Your task to perform on an android device: read, delete, or share a saved page in the chrome app Image 0: 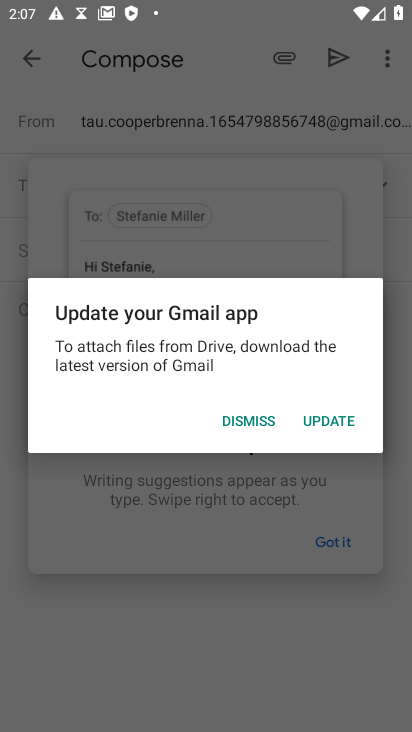
Step 0: press back button
Your task to perform on an android device: read, delete, or share a saved page in the chrome app Image 1: 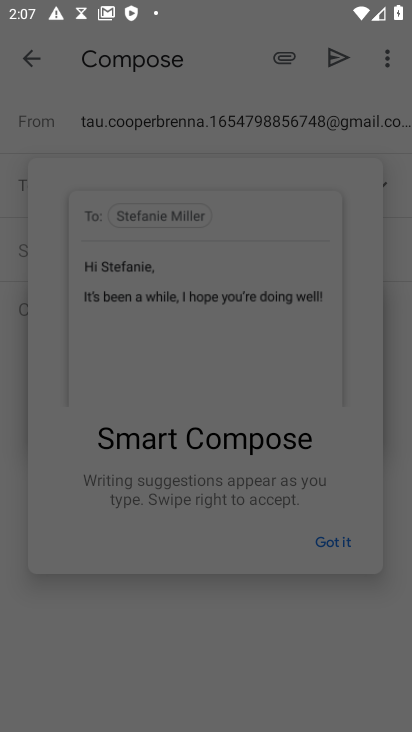
Step 1: press back button
Your task to perform on an android device: read, delete, or share a saved page in the chrome app Image 2: 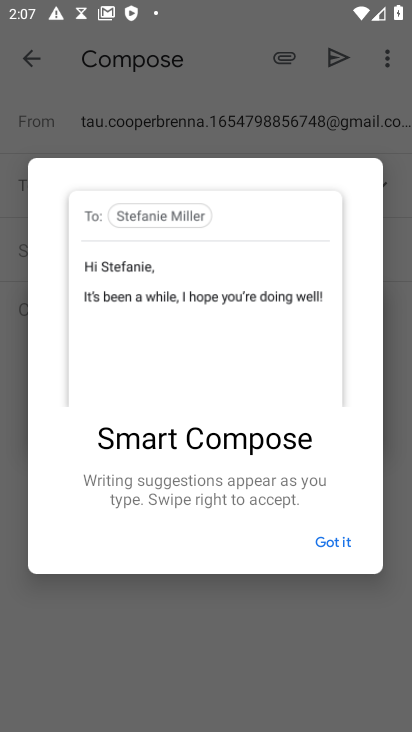
Step 2: press back button
Your task to perform on an android device: read, delete, or share a saved page in the chrome app Image 3: 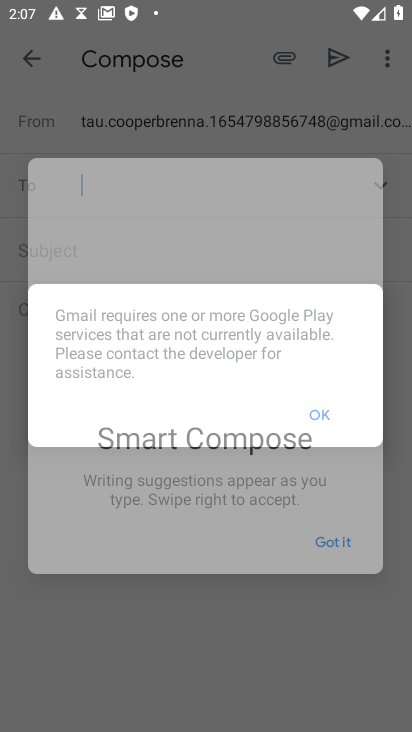
Step 3: press back button
Your task to perform on an android device: read, delete, or share a saved page in the chrome app Image 4: 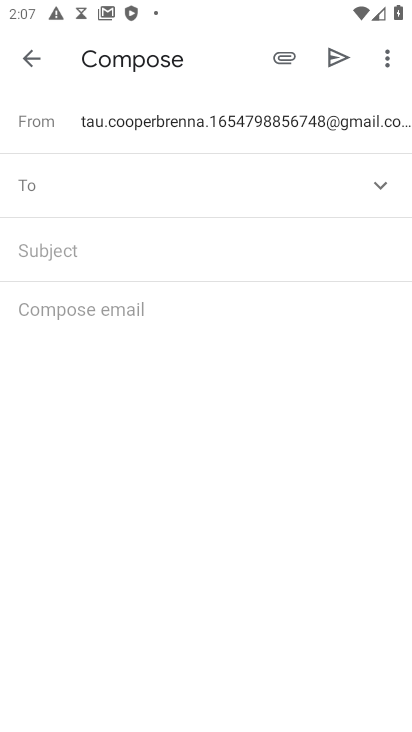
Step 4: press home button
Your task to perform on an android device: read, delete, or share a saved page in the chrome app Image 5: 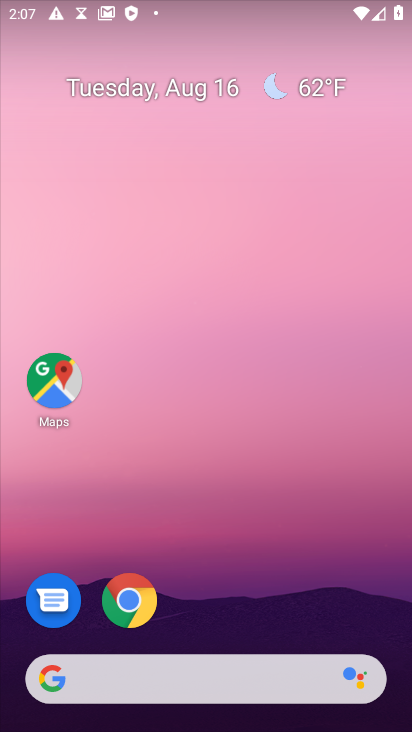
Step 5: click (147, 604)
Your task to perform on an android device: read, delete, or share a saved page in the chrome app Image 6: 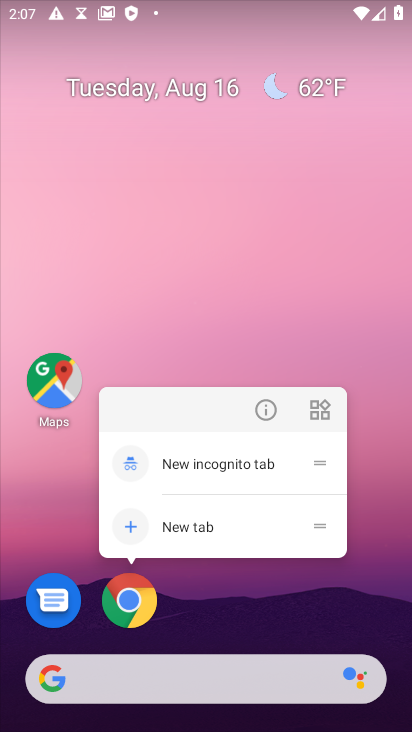
Step 6: click (138, 596)
Your task to perform on an android device: read, delete, or share a saved page in the chrome app Image 7: 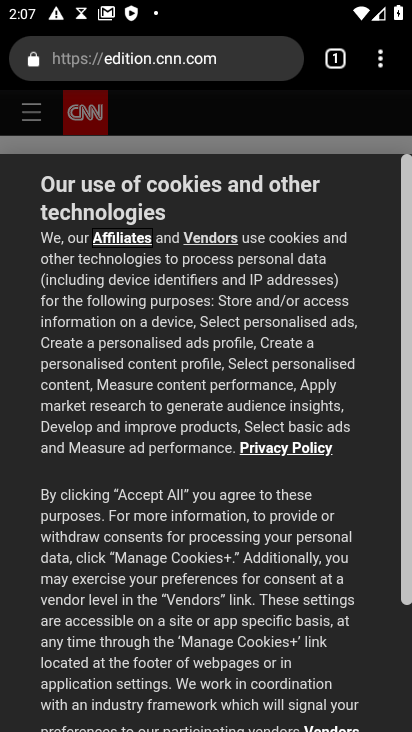
Step 7: drag from (382, 64) to (188, 385)
Your task to perform on an android device: read, delete, or share a saved page in the chrome app Image 8: 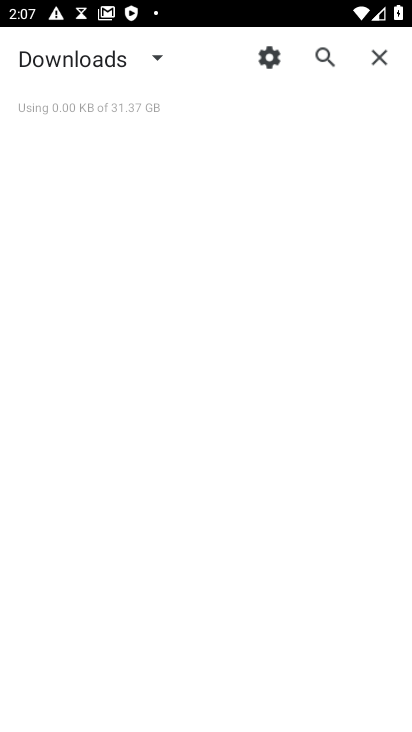
Step 8: click (149, 63)
Your task to perform on an android device: read, delete, or share a saved page in the chrome app Image 9: 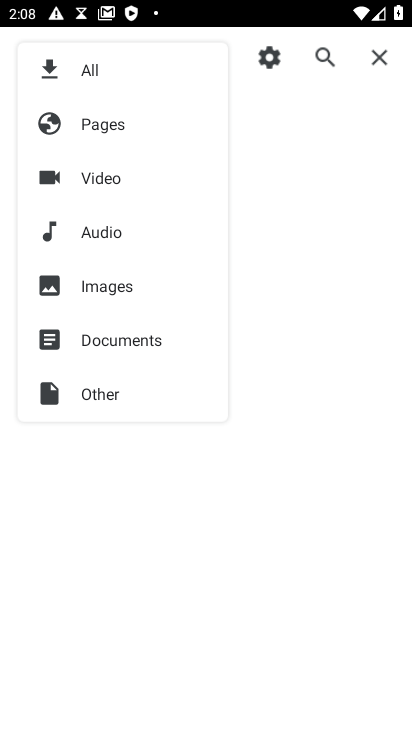
Step 9: click (116, 127)
Your task to perform on an android device: read, delete, or share a saved page in the chrome app Image 10: 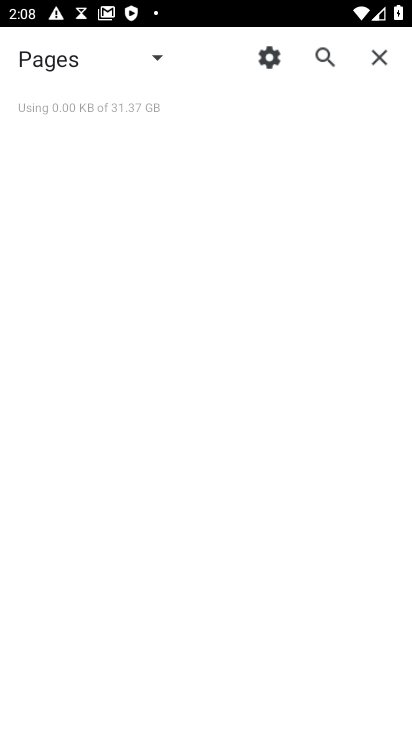
Step 10: task complete